Your task to perform on an android device: install app "ColorNote Notepad Notes" Image 0: 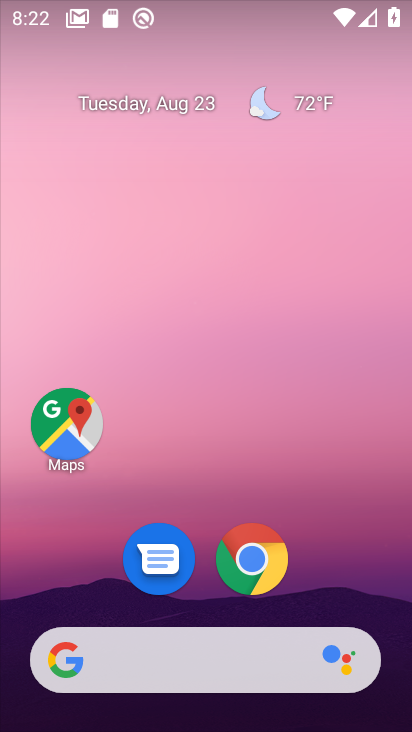
Step 0: drag from (205, 495) to (230, 115)
Your task to perform on an android device: install app "ColorNote Notepad Notes" Image 1: 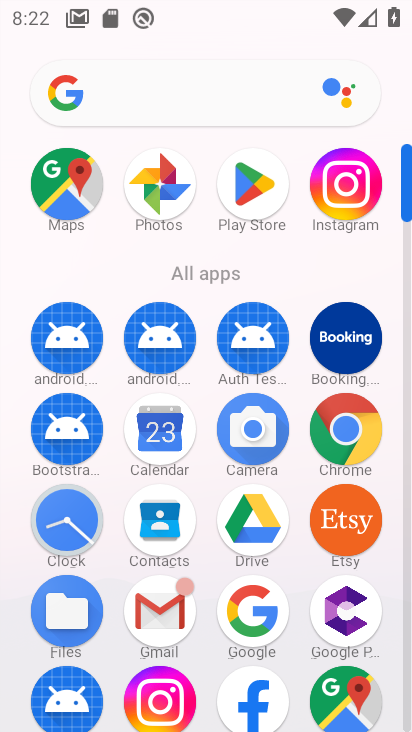
Step 1: click (245, 173)
Your task to perform on an android device: install app "ColorNote Notepad Notes" Image 2: 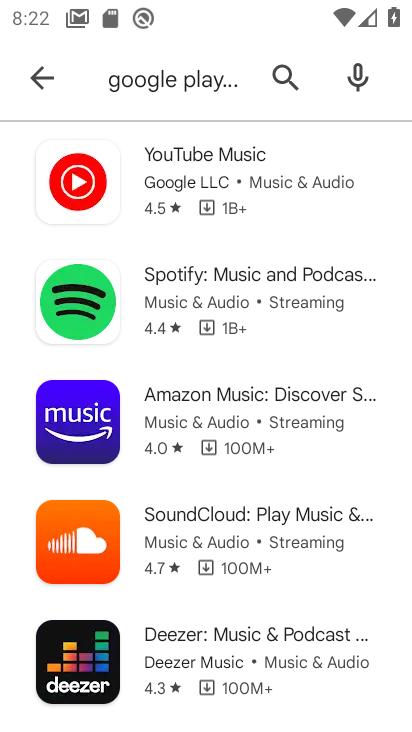
Step 2: click (279, 87)
Your task to perform on an android device: install app "ColorNote Notepad Notes" Image 3: 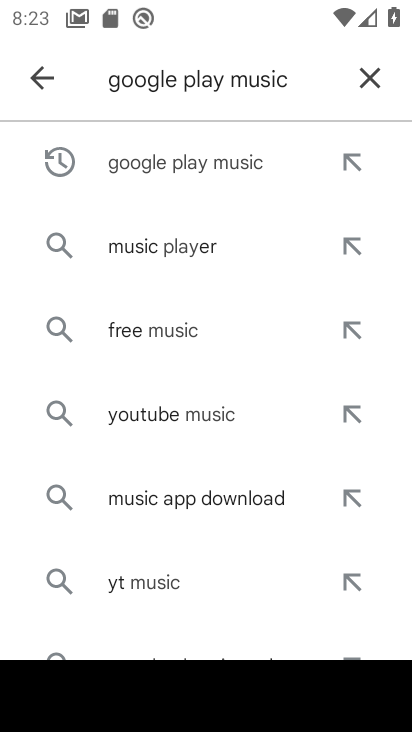
Step 3: click (374, 79)
Your task to perform on an android device: install app "ColorNote Notepad Notes" Image 4: 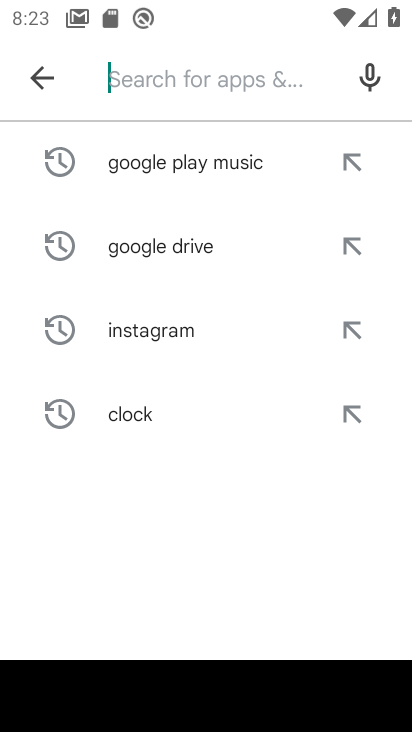
Step 4: type "ColorNote Notepad Notes"
Your task to perform on an android device: install app "ColorNote Notepad Notes" Image 5: 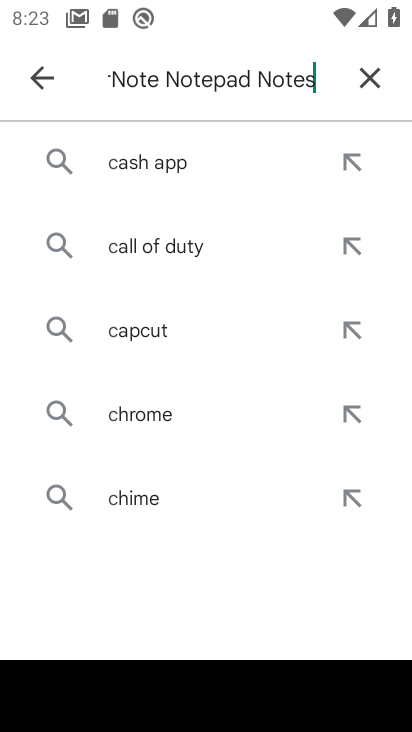
Step 5: type ""
Your task to perform on an android device: install app "ColorNote Notepad Notes" Image 6: 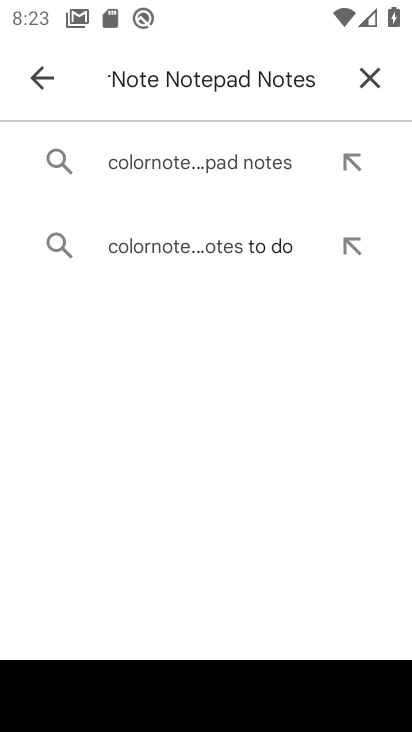
Step 6: click (176, 161)
Your task to perform on an android device: install app "ColorNote Notepad Notes" Image 7: 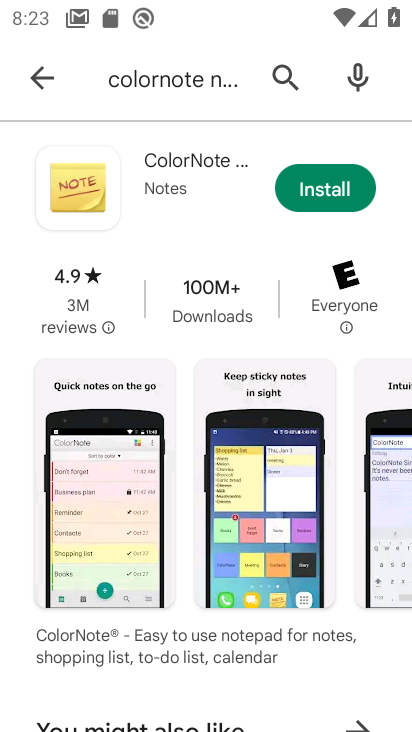
Step 7: click (318, 177)
Your task to perform on an android device: install app "ColorNote Notepad Notes" Image 8: 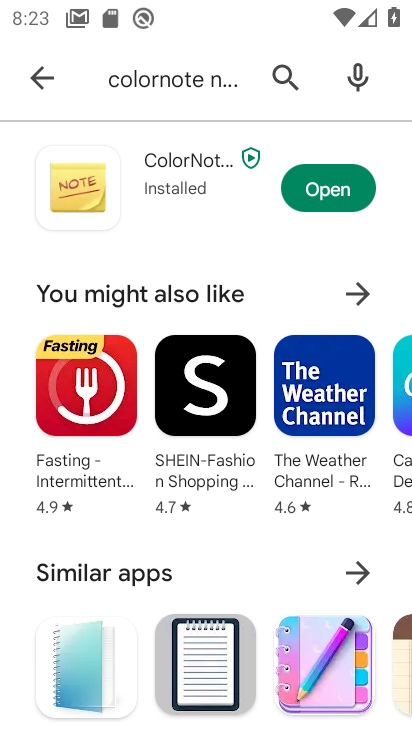
Step 8: task complete